Your task to perform on an android device: Check the news Image 0: 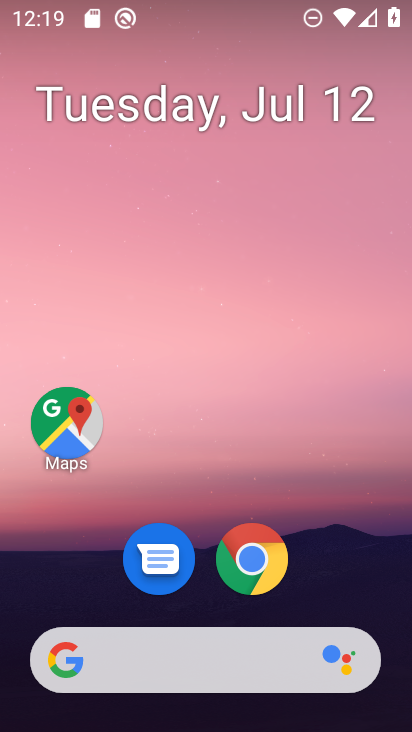
Step 0: drag from (176, 513) to (176, 99)
Your task to perform on an android device: Check the news Image 1: 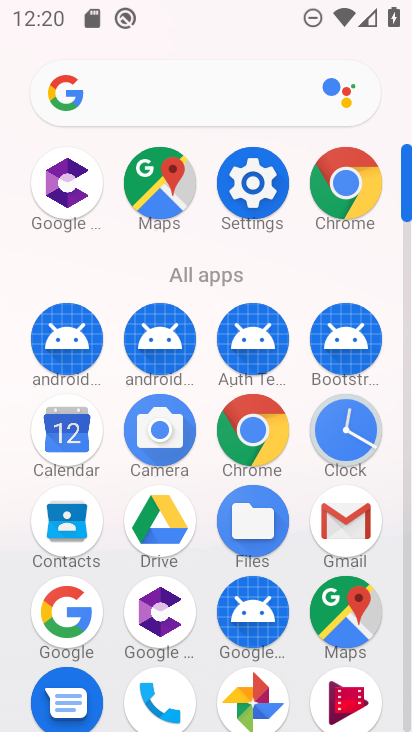
Step 1: click (198, 111)
Your task to perform on an android device: Check the news Image 2: 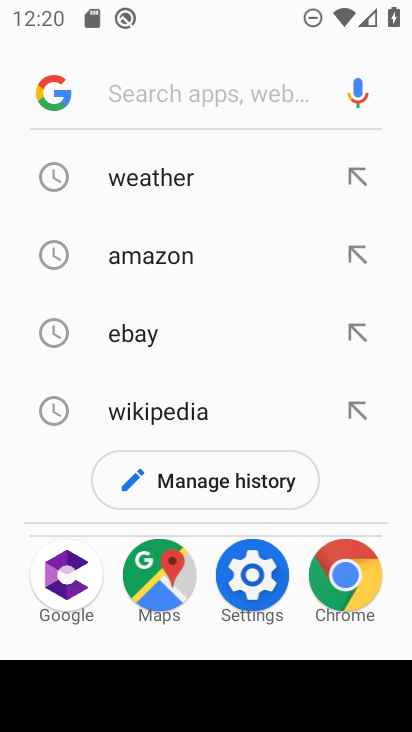
Step 2: type "news"
Your task to perform on an android device: Check the news Image 3: 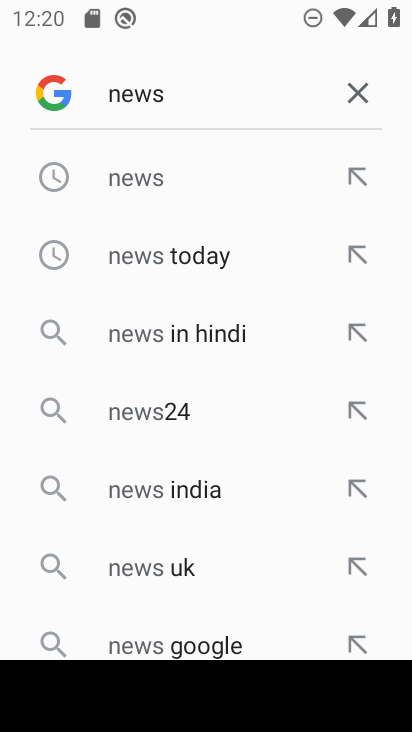
Step 3: click (162, 175)
Your task to perform on an android device: Check the news Image 4: 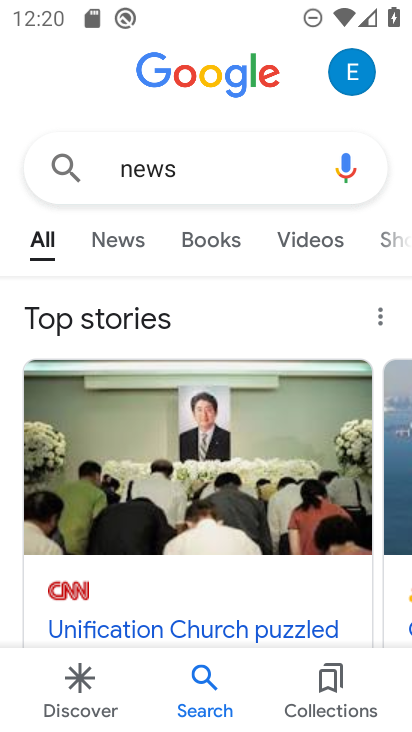
Step 4: task complete